Your task to perform on an android device: change keyboard looks Image 0: 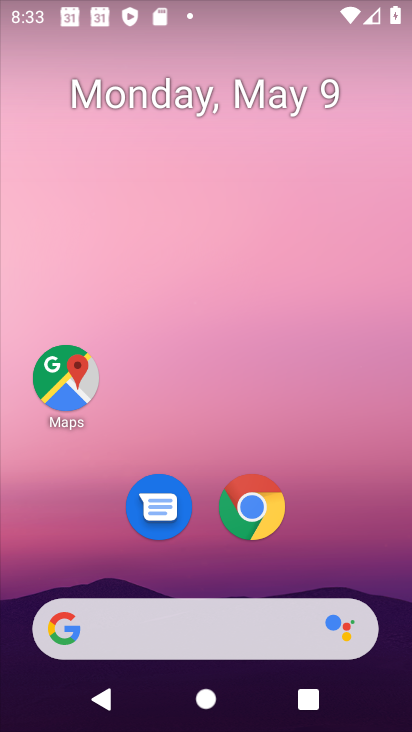
Step 0: drag from (322, 505) to (195, 91)
Your task to perform on an android device: change keyboard looks Image 1: 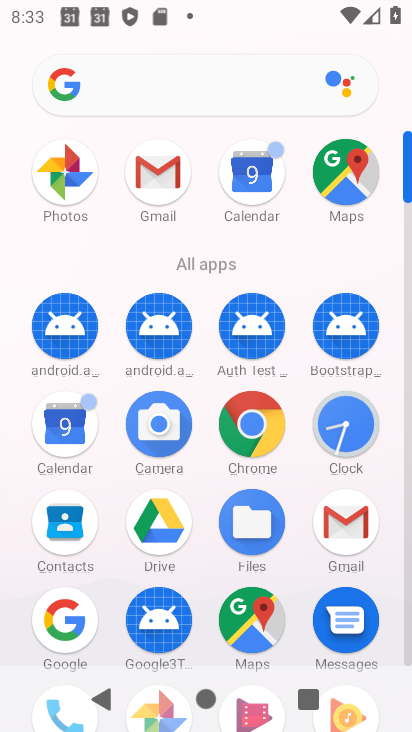
Step 1: drag from (202, 480) to (170, 221)
Your task to perform on an android device: change keyboard looks Image 2: 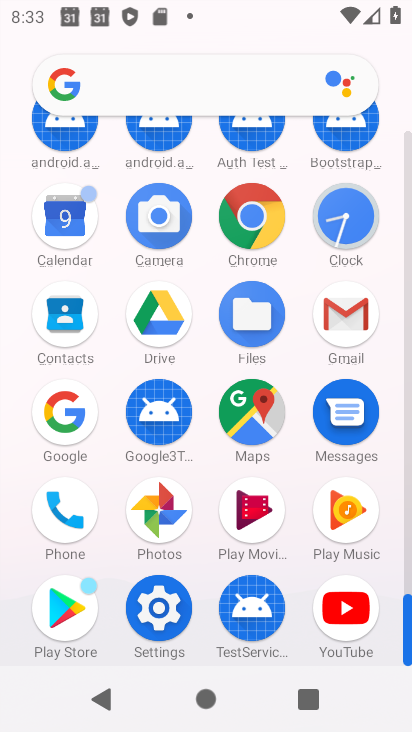
Step 2: click (158, 606)
Your task to perform on an android device: change keyboard looks Image 3: 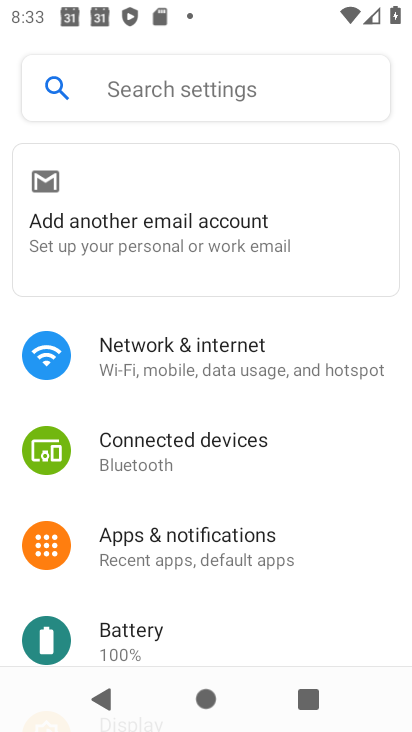
Step 3: drag from (179, 636) to (221, 493)
Your task to perform on an android device: change keyboard looks Image 4: 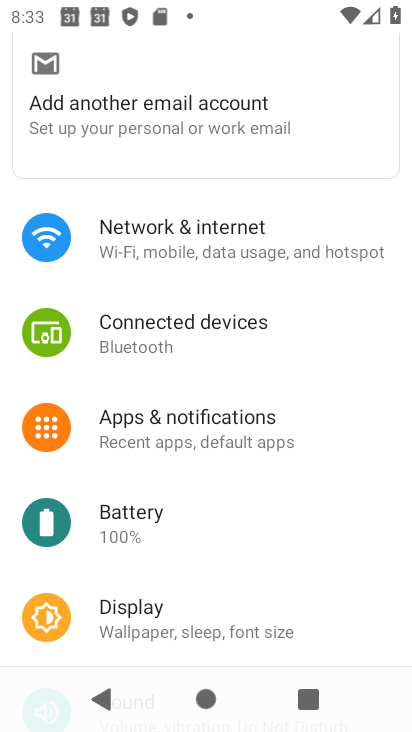
Step 4: drag from (190, 587) to (230, 455)
Your task to perform on an android device: change keyboard looks Image 5: 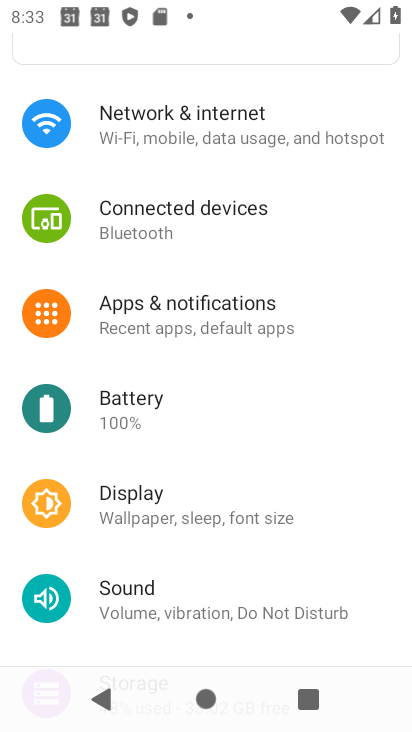
Step 5: drag from (184, 572) to (241, 409)
Your task to perform on an android device: change keyboard looks Image 6: 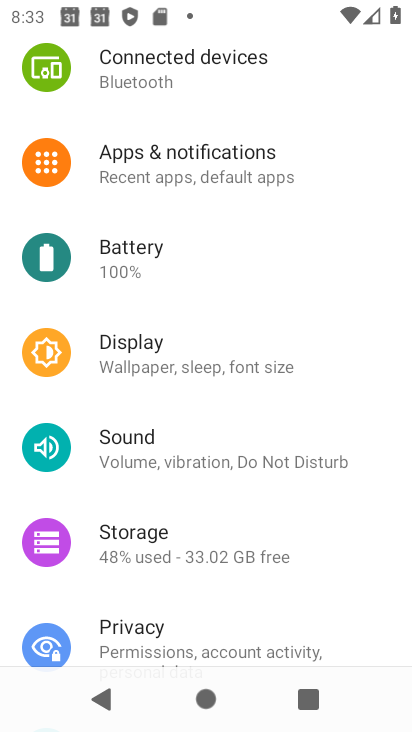
Step 6: drag from (179, 571) to (222, 500)
Your task to perform on an android device: change keyboard looks Image 7: 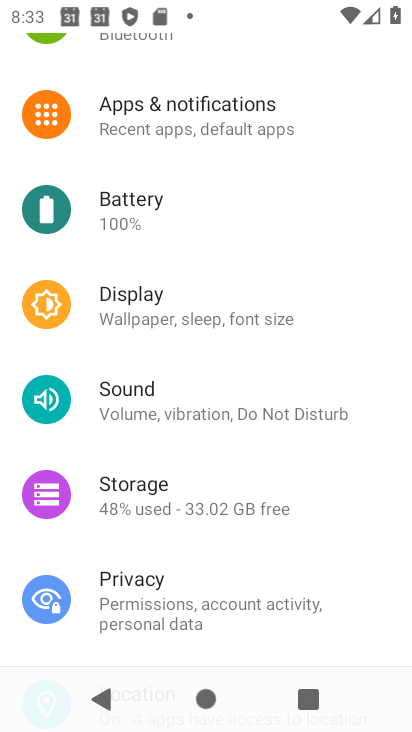
Step 7: drag from (206, 579) to (224, 513)
Your task to perform on an android device: change keyboard looks Image 8: 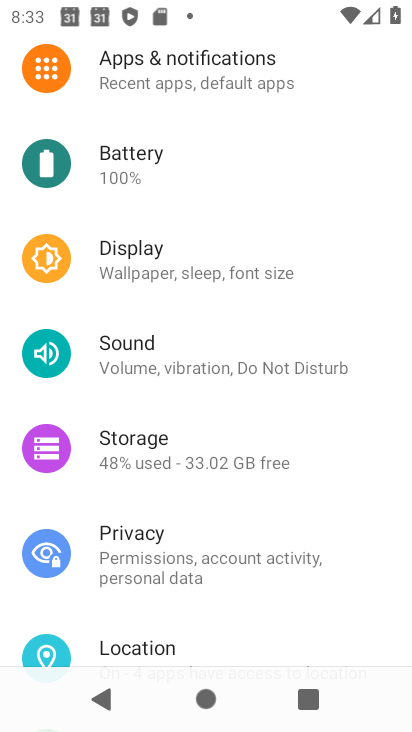
Step 8: drag from (203, 629) to (223, 526)
Your task to perform on an android device: change keyboard looks Image 9: 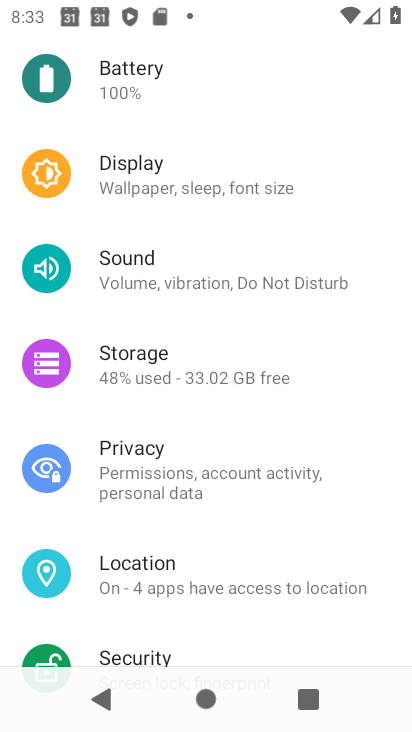
Step 9: drag from (188, 642) to (277, 380)
Your task to perform on an android device: change keyboard looks Image 10: 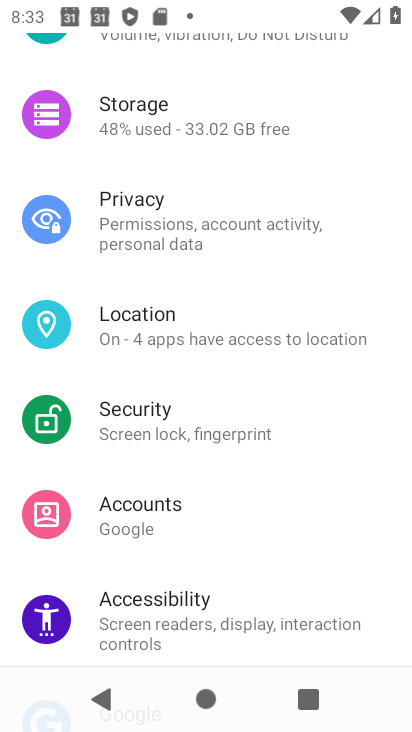
Step 10: drag from (234, 554) to (258, 410)
Your task to perform on an android device: change keyboard looks Image 11: 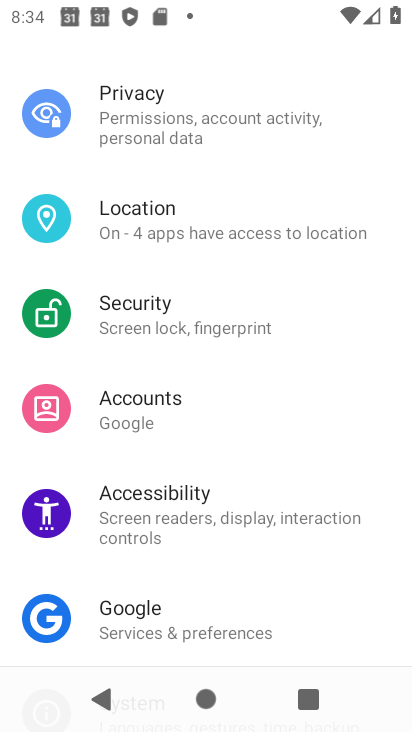
Step 11: drag from (209, 600) to (244, 509)
Your task to perform on an android device: change keyboard looks Image 12: 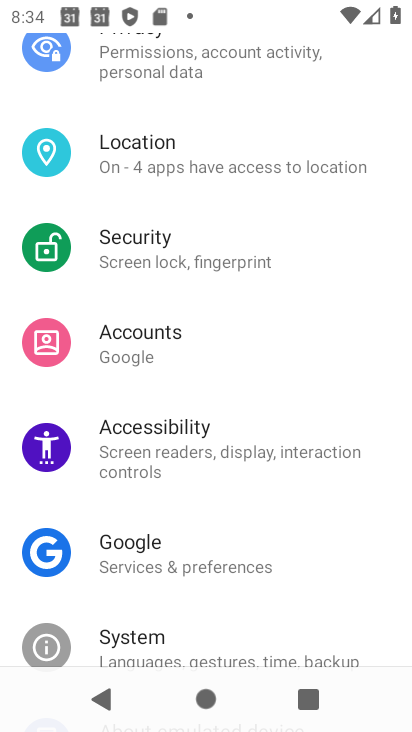
Step 12: drag from (208, 616) to (259, 512)
Your task to perform on an android device: change keyboard looks Image 13: 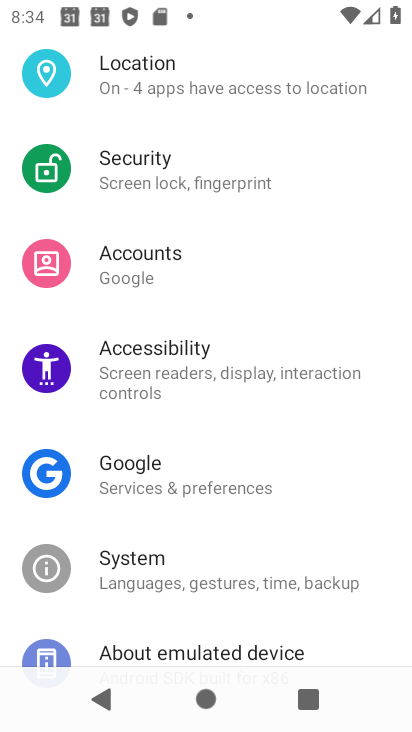
Step 13: click (171, 583)
Your task to perform on an android device: change keyboard looks Image 14: 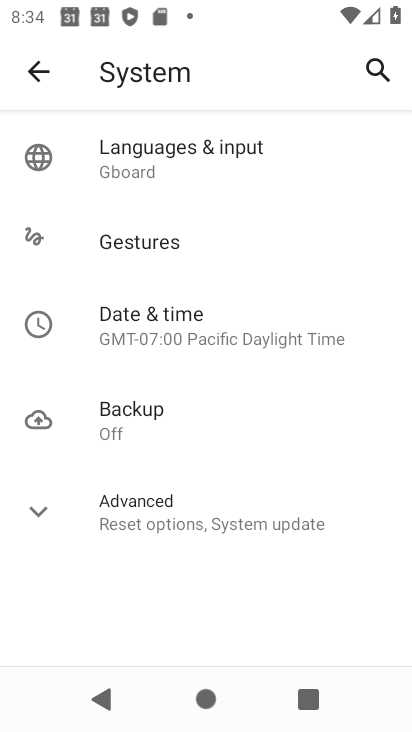
Step 14: click (142, 163)
Your task to perform on an android device: change keyboard looks Image 15: 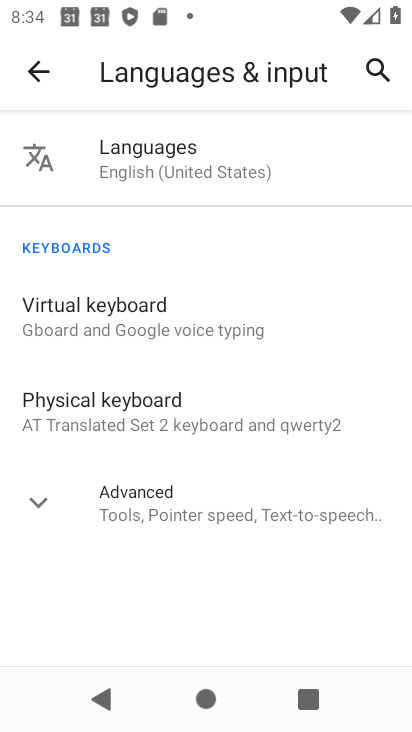
Step 15: click (108, 307)
Your task to perform on an android device: change keyboard looks Image 16: 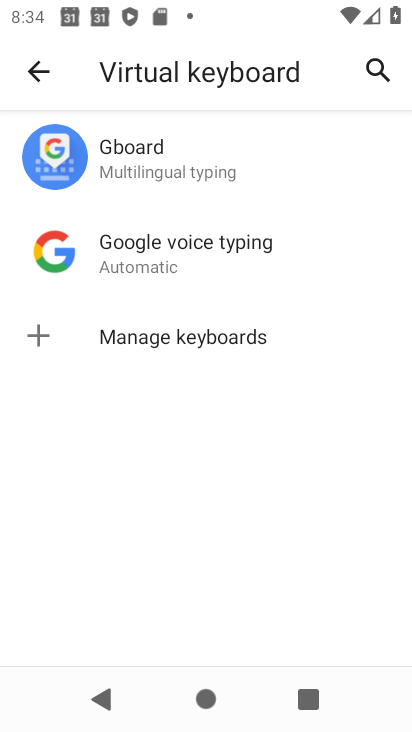
Step 16: click (130, 149)
Your task to perform on an android device: change keyboard looks Image 17: 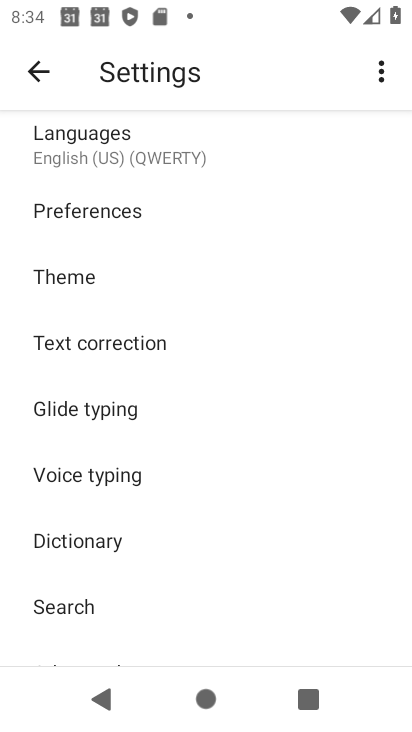
Step 17: click (83, 284)
Your task to perform on an android device: change keyboard looks Image 18: 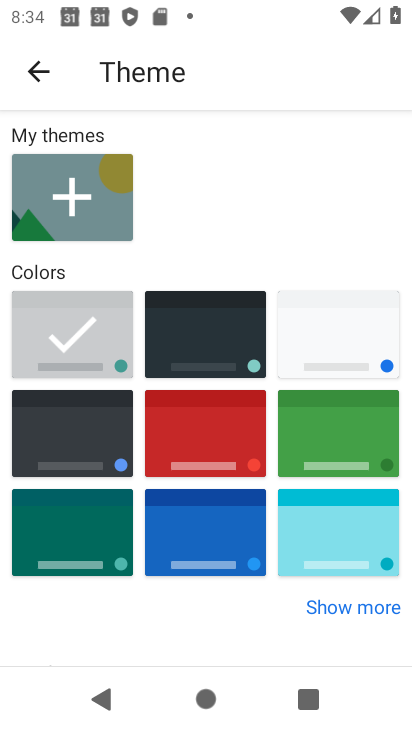
Step 18: click (355, 431)
Your task to perform on an android device: change keyboard looks Image 19: 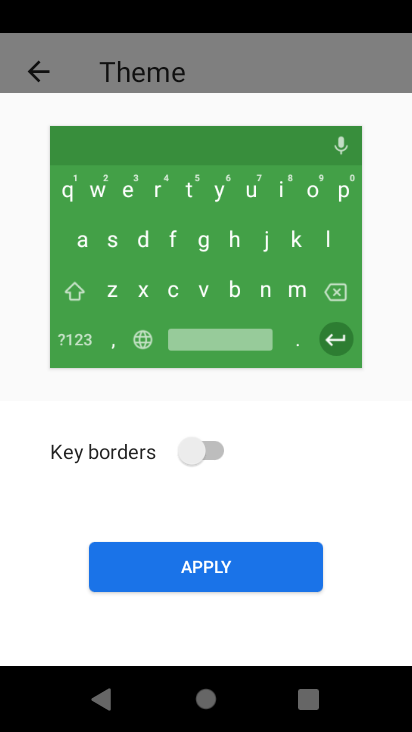
Step 19: click (192, 454)
Your task to perform on an android device: change keyboard looks Image 20: 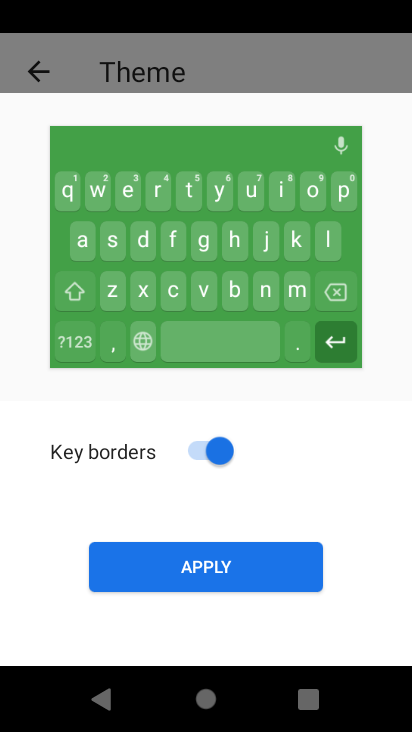
Step 20: click (278, 560)
Your task to perform on an android device: change keyboard looks Image 21: 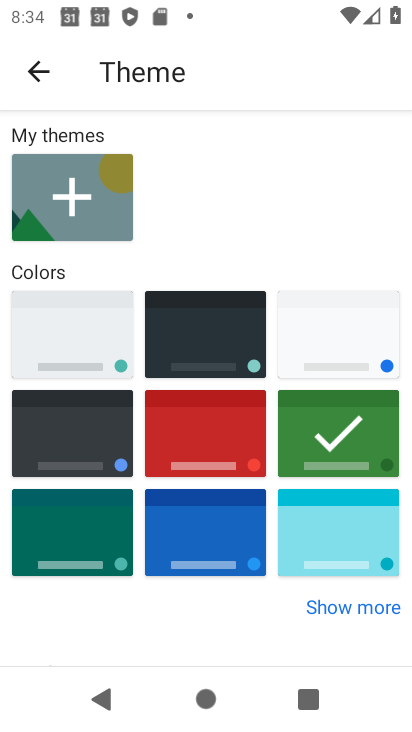
Step 21: task complete